Your task to perform on an android device: toggle pop-ups in chrome Image 0: 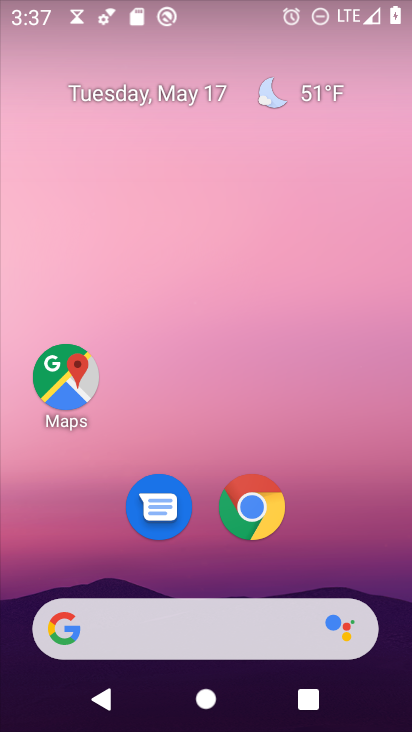
Step 0: click (247, 507)
Your task to perform on an android device: toggle pop-ups in chrome Image 1: 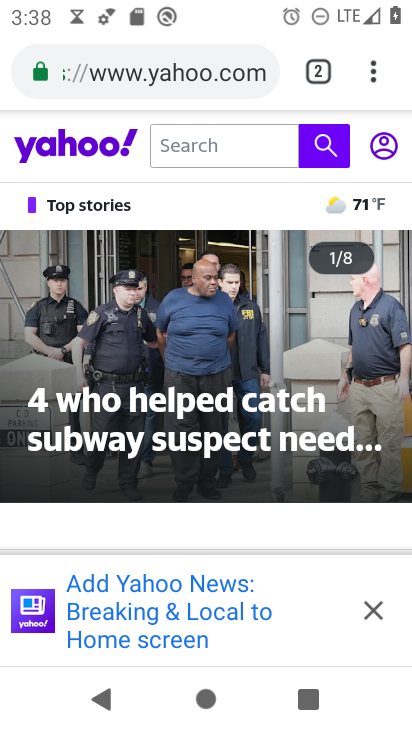
Step 1: click (372, 73)
Your task to perform on an android device: toggle pop-ups in chrome Image 2: 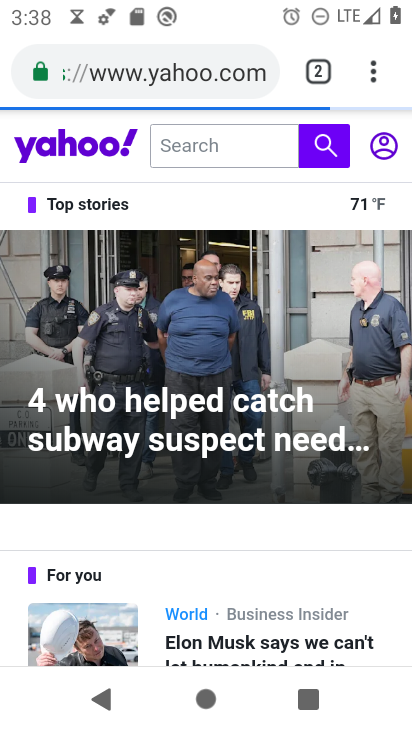
Step 2: click (372, 73)
Your task to perform on an android device: toggle pop-ups in chrome Image 3: 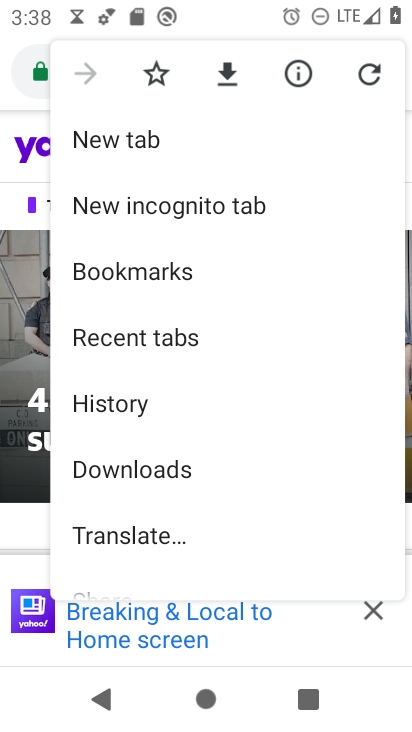
Step 3: drag from (227, 488) to (246, 246)
Your task to perform on an android device: toggle pop-ups in chrome Image 4: 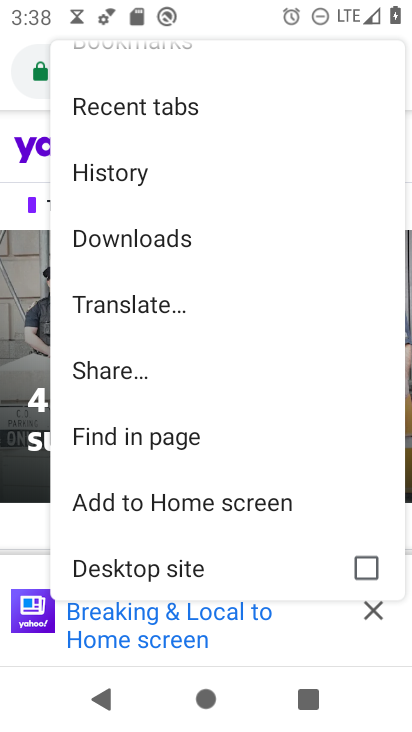
Step 4: drag from (226, 529) to (237, 216)
Your task to perform on an android device: toggle pop-ups in chrome Image 5: 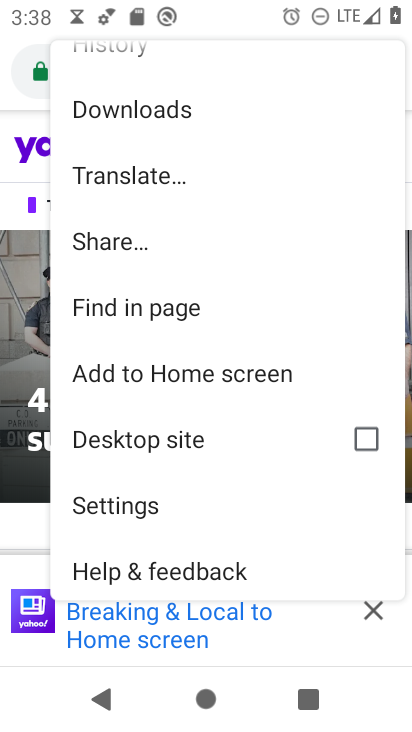
Step 5: click (204, 500)
Your task to perform on an android device: toggle pop-ups in chrome Image 6: 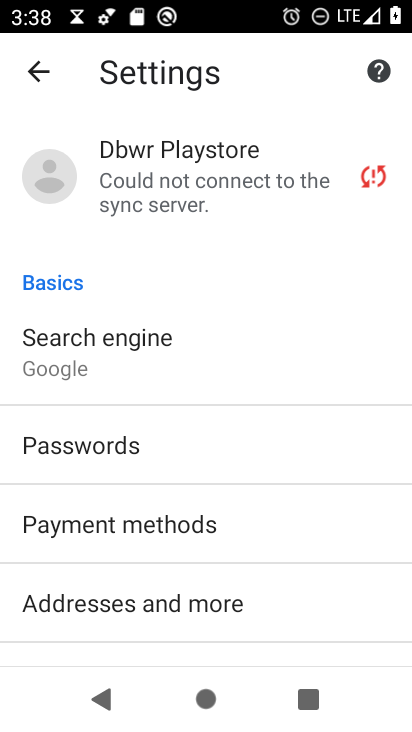
Step 6: drag from (191, 551) to (174, 346)
Your task to perform on an android device: toggle pop-ups in chrome Image 7: 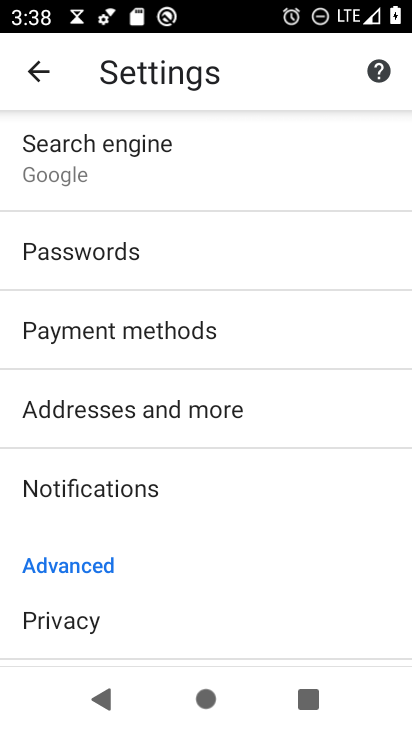
Step 7: drag from (212, 573) to (196, 321)
Your task to perform on an android device: toggle pop-ups in chrome Image 8: 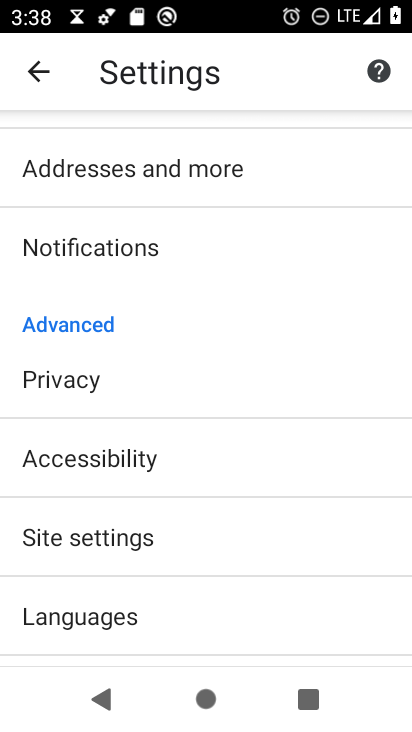
Step 8: click (127, 529)
Your task to perform on an android device: toggle pop-ups in chrome Image 9: 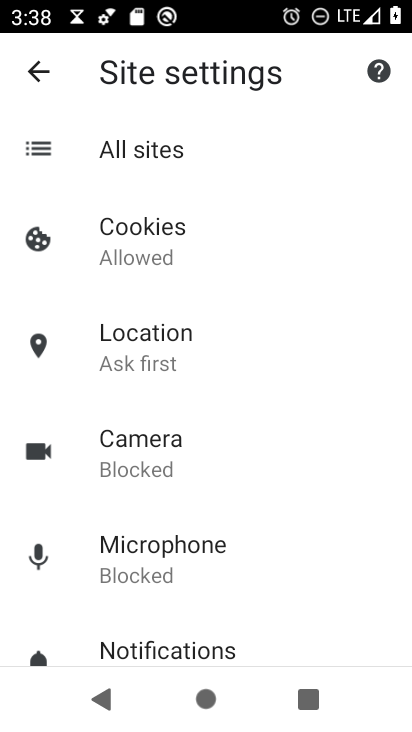
Step 9: drag from (216, 636) to (201, 406)
Your task to perform on an android device: toggle pop-ups in chrome Image 10: 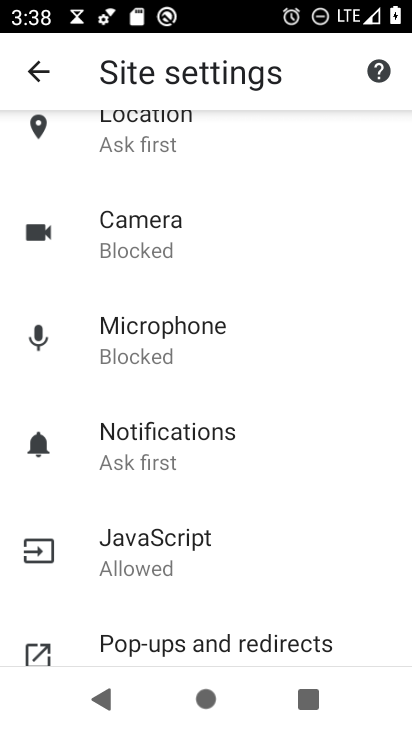
Step 10: click (220, 648)
Your task to perform on an android device: toggle pop-ups in chrome Image 11: 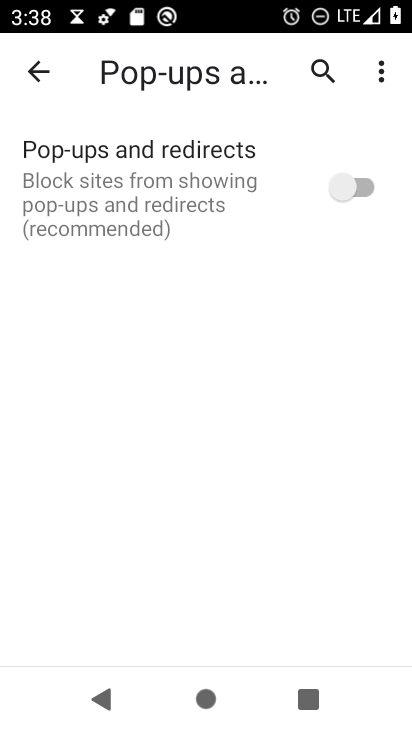
Step 11: click (351, 190)
Your task to perform on an android device: toggle pop-ups in chrome Image 12: 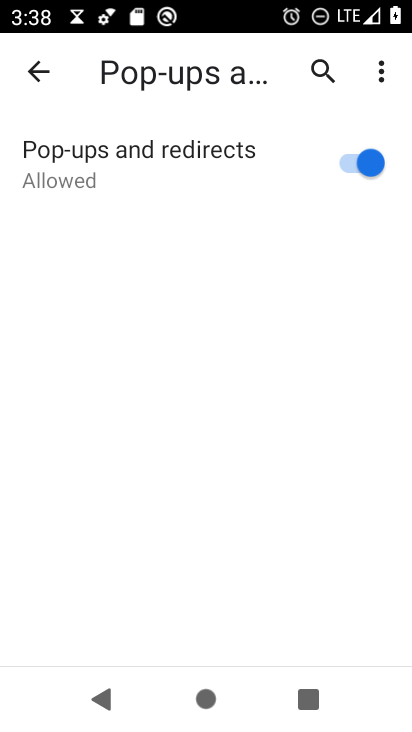
Step 12: task complete